Your task to perform on an android device: delete the emails in spam in the gmail app Image 0: 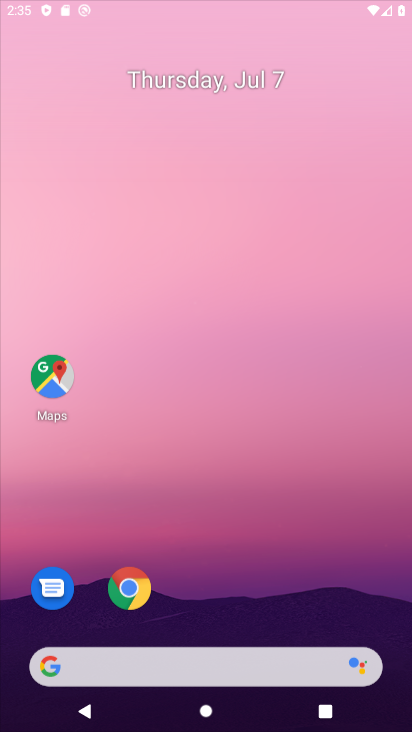
Step 0: drag from (210, 653) to (335, 54)
Your task to perform on an android device: delete the emails in spam in the gmail app Image 1: 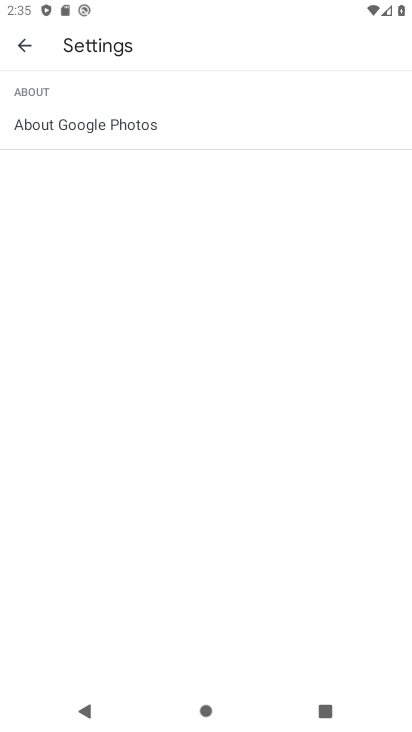
Step 1: press home button
Your task to perform on an android device: delete the emails in spam in the gmail app Image 2: 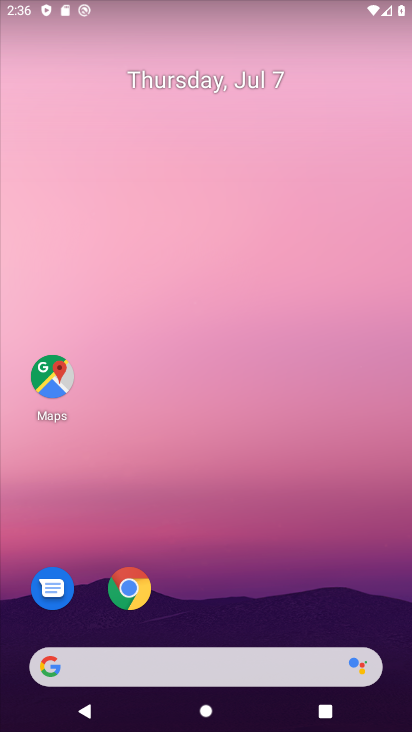
Step 2: drag from (294, 596) to (405, 156)
Your task to perform on an android device: delete the emails in spam in the gmail app Image 3: 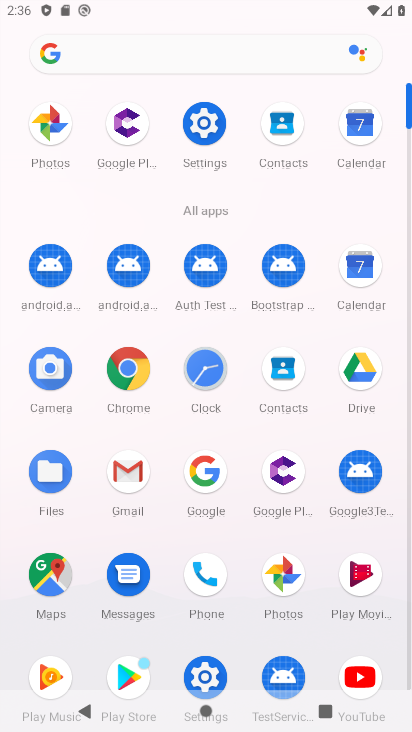
Step 3: click (128, 493)
Your task to perform on an android device: delete the emails in spam in the gmail app Image 4: 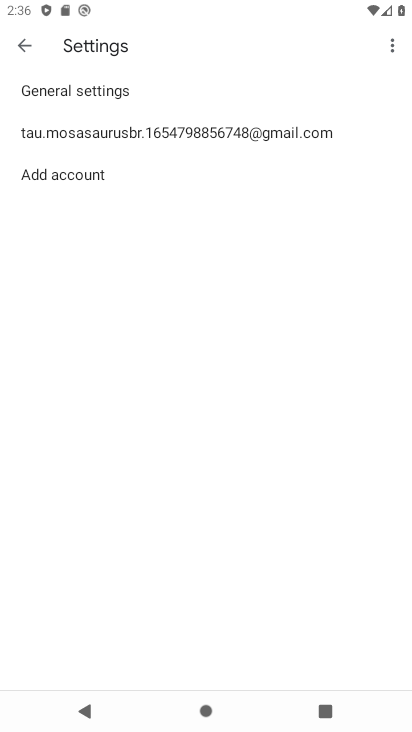
Step 4: click (28, 44)
Your task to perform on an android device: delete the emails in spam in the gmail app Image 5: 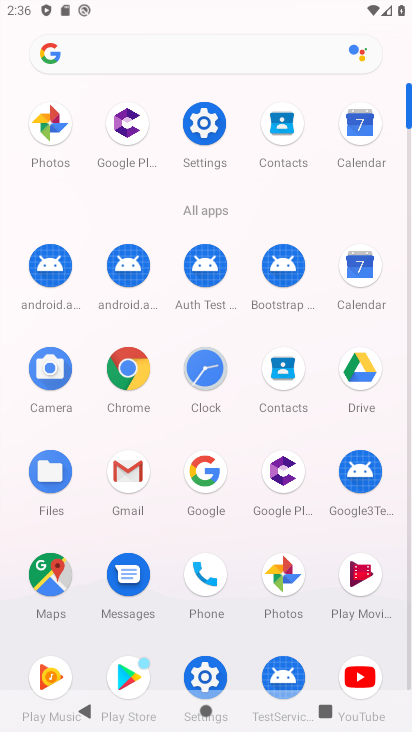
Step 5: click (135, 488)
Your task to perform on an android device: delete the emails in spam in the gmail app Image 6: 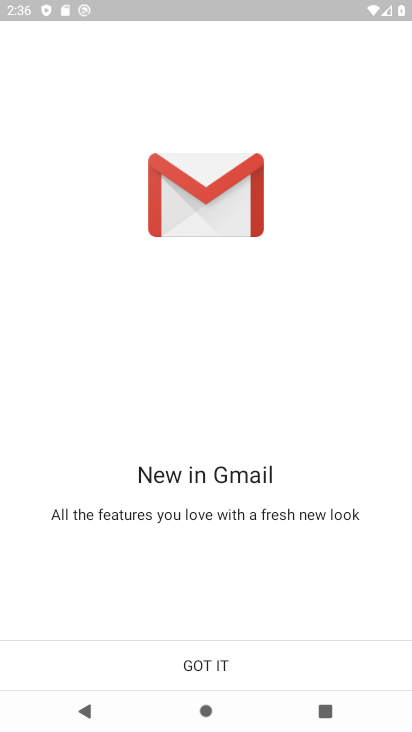
Step 6: click (193, 664)
Your task to perform on an android device: delete the emails in spam in the gmail app Image 7: 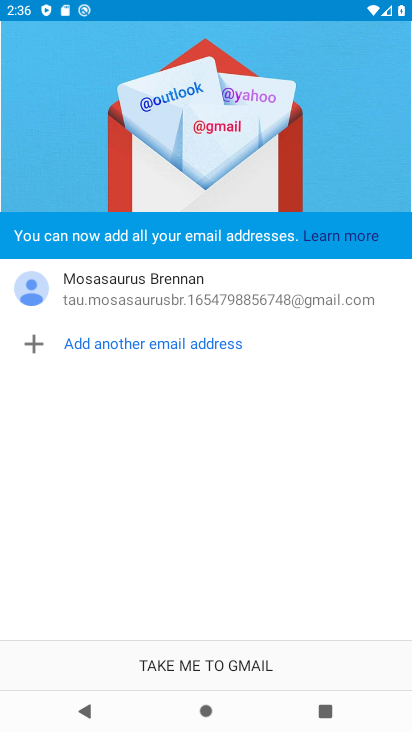
Step 7: click (193, 664)
Your task to perform on an android device: delete the emails in spam in the gmail app Image 8: 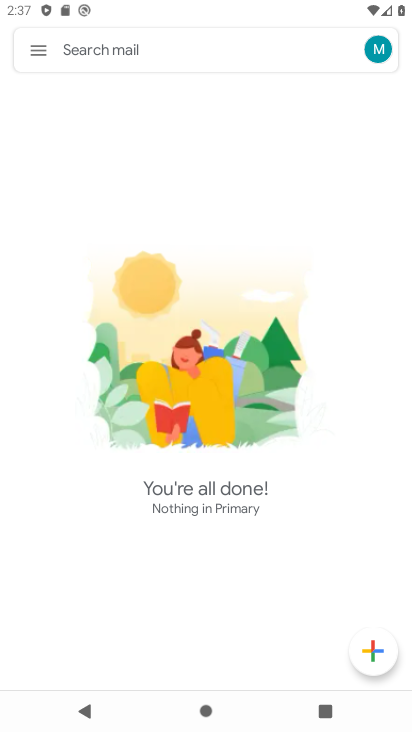
Step 8: click (43, 53)
Your task to perform on an android device: delete the emails in spam in the gmail app Image 9: 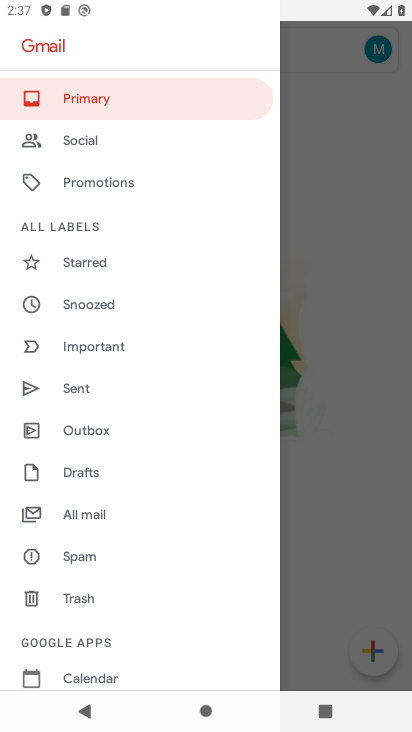
Step 9: click (74, 551)
Your task to perform on an android device: delete the emails in spam in the gmail app Image 10: 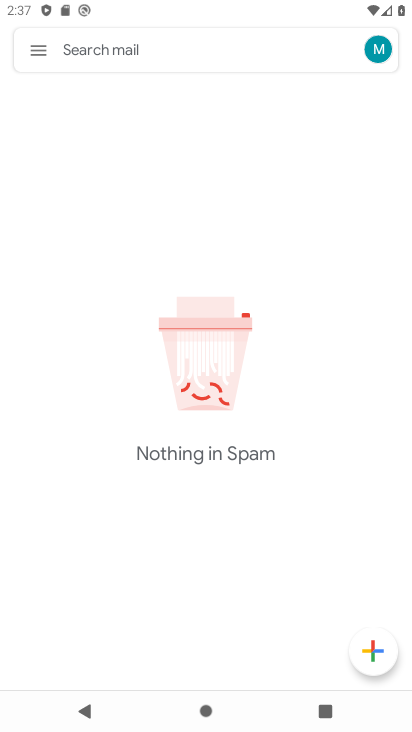
Step 10: task complete